Your task to perform on an android device: Go to network settings Image 0: 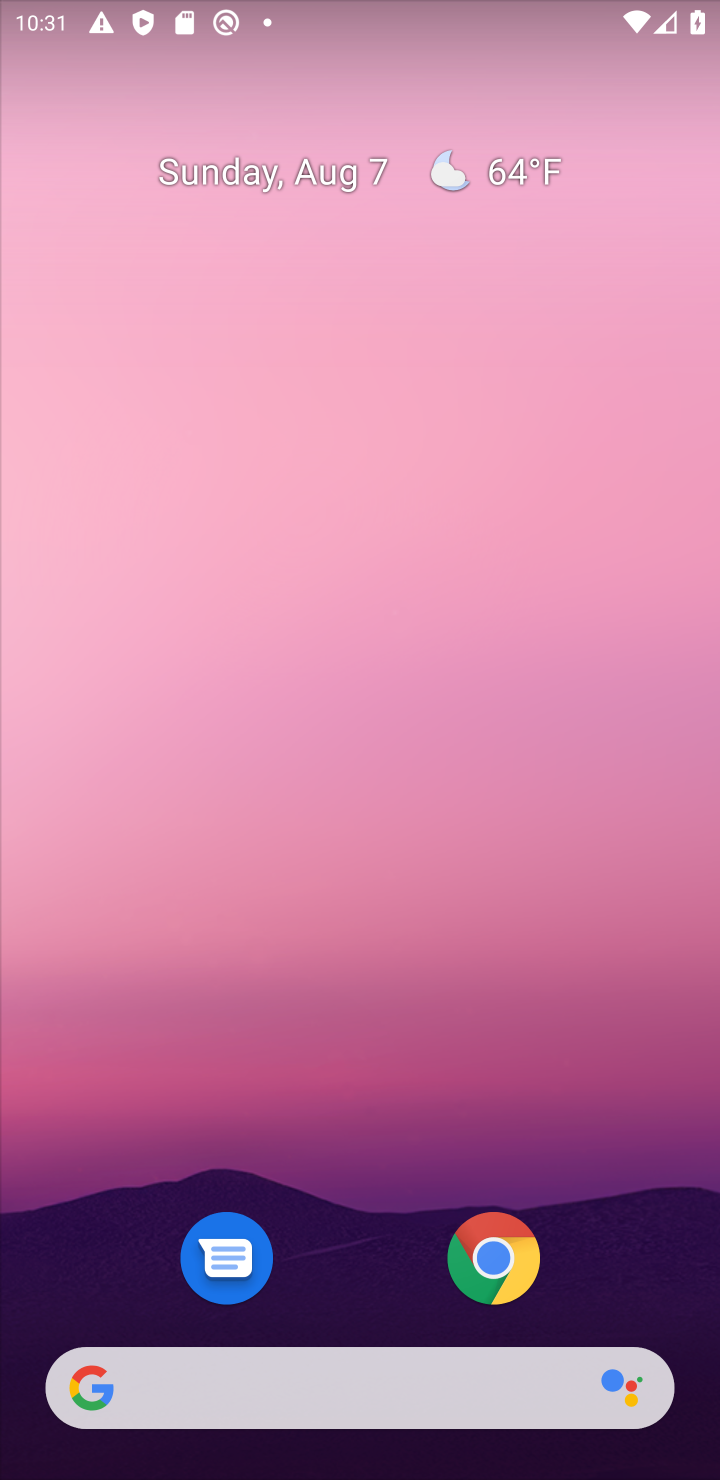
Step 0: drag from (346, 1218) to (356, 272)
Your task to perform on an android device: Go to network settings Image 1: 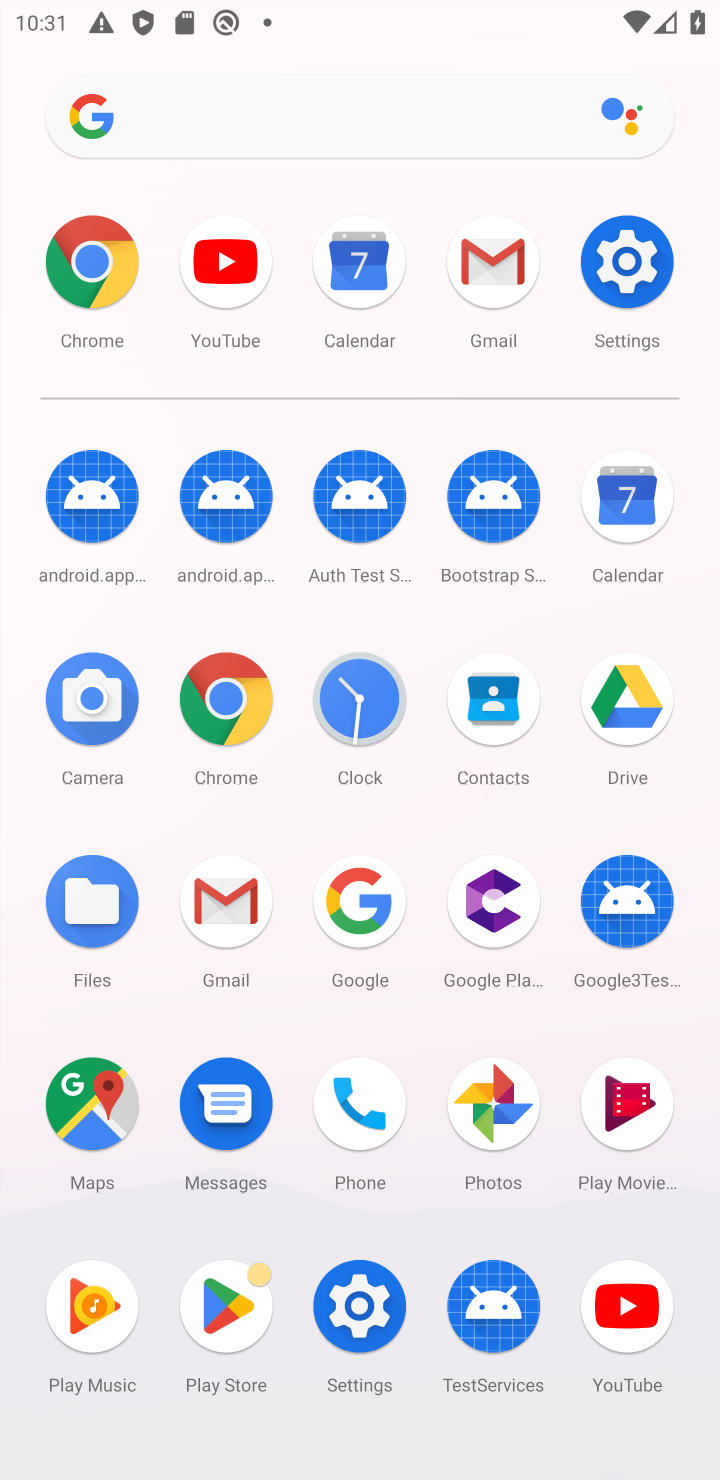
Step 1: click (616, 248)
Your task to perform on an android device: Go to network settings Image 2: 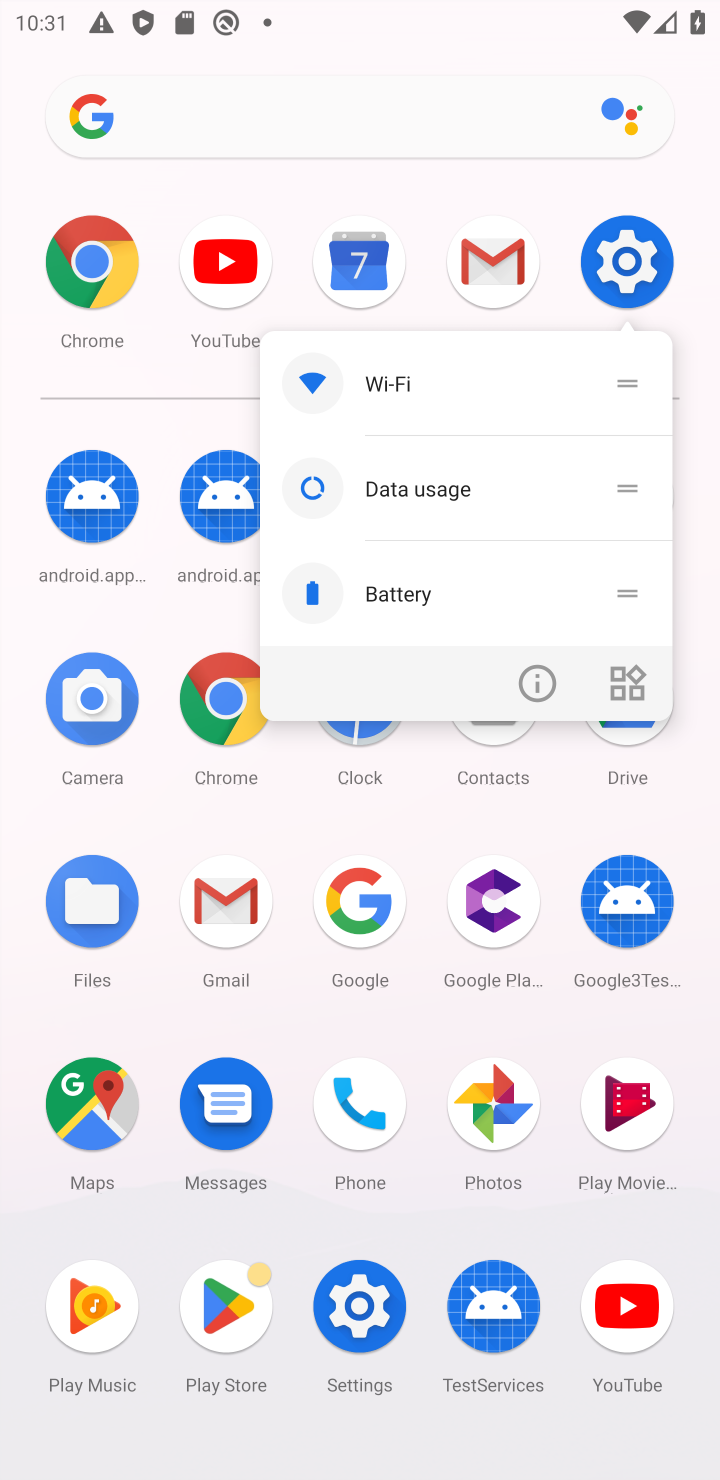
Step 2: click (616, 248)
Your task to perform on an android device: Go to network settings Image 3: 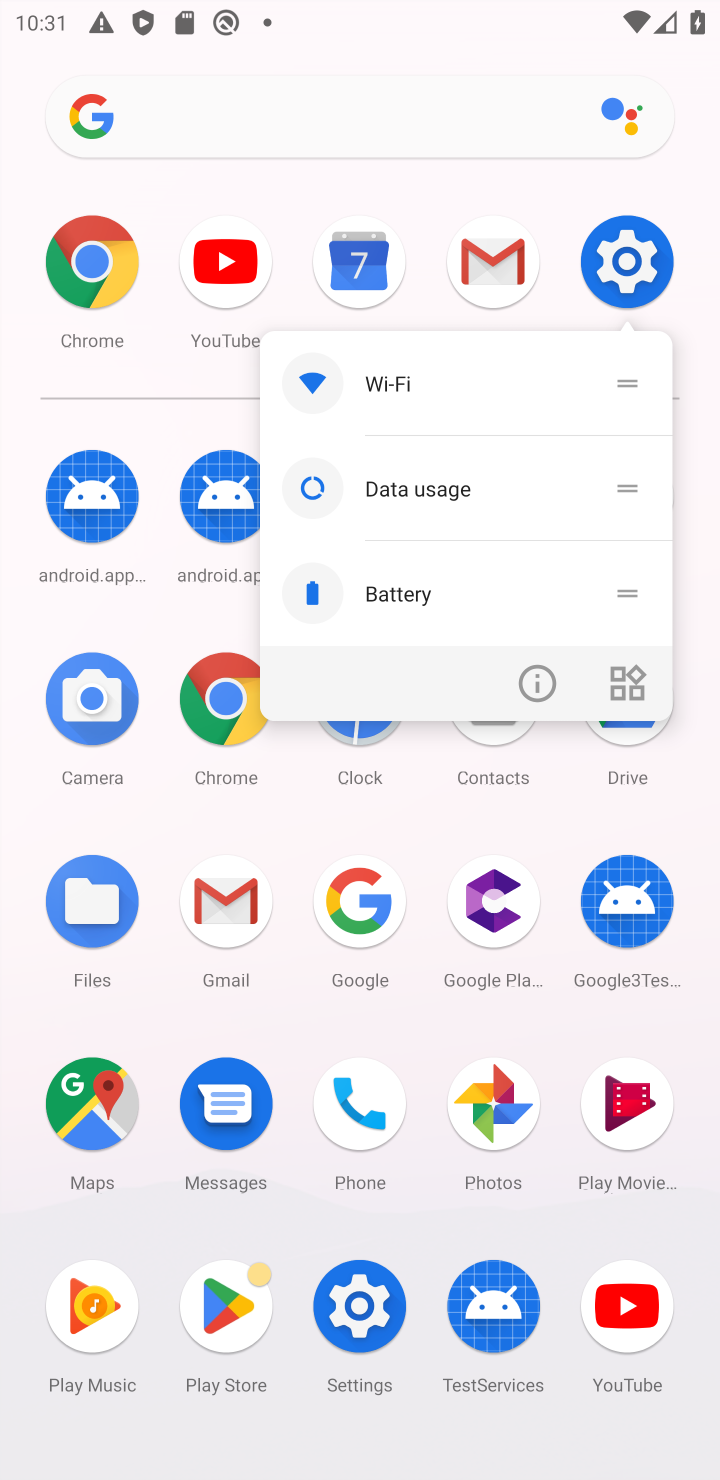
Step 3: click (616, 248)
Your task to perform on an android device: Go to network settings Image 4: 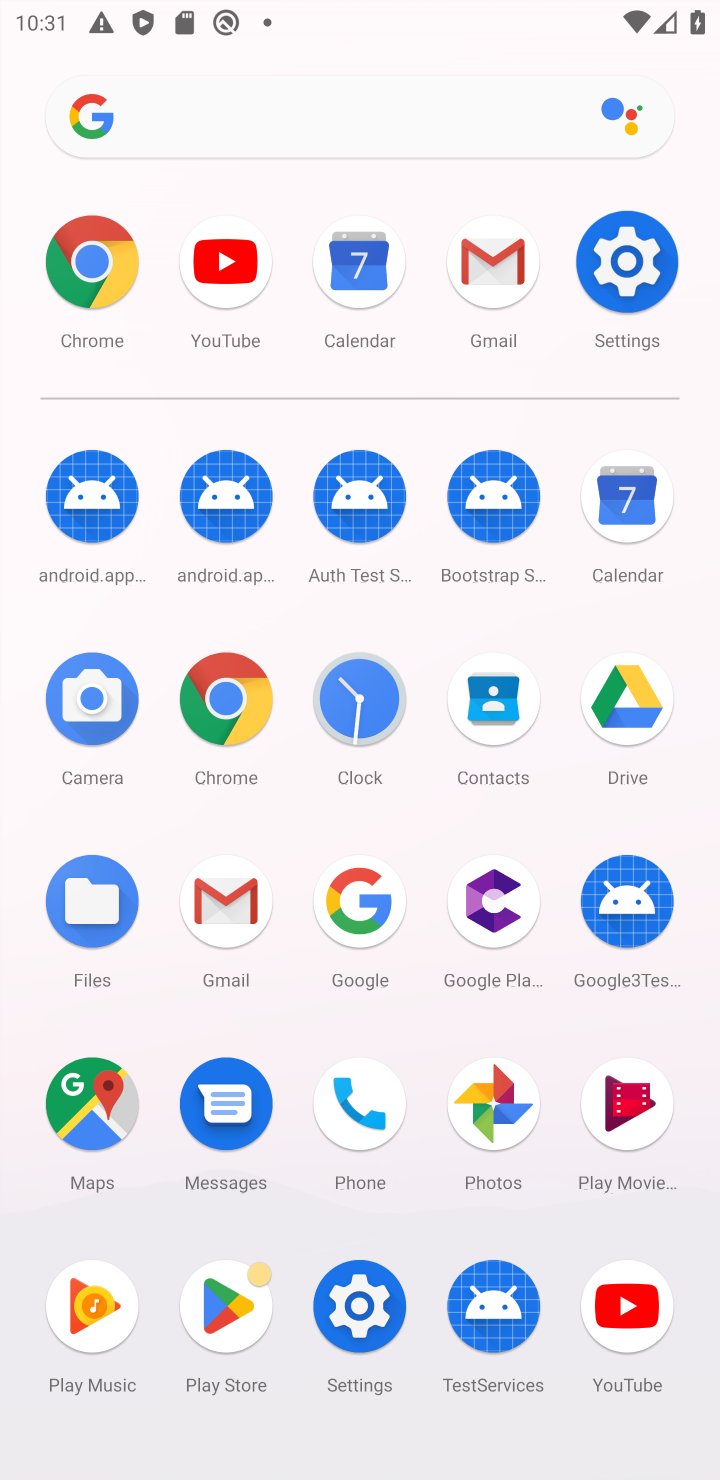
Step 4: click (616, 248)
Your task to perform on an android device: Go to network settings Image 5: 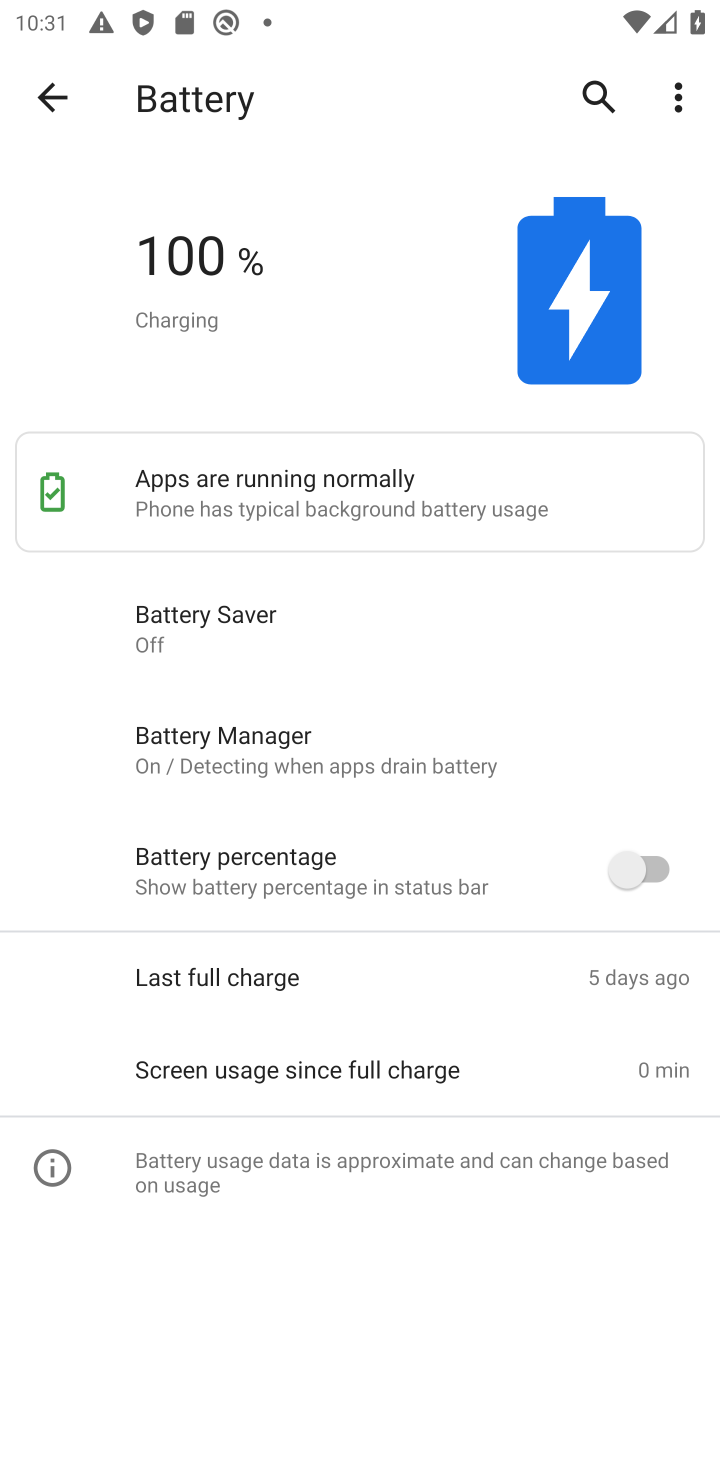
Step 5: click (41, 83)
Your task to perform on an android device: Go to network settings Image 6: 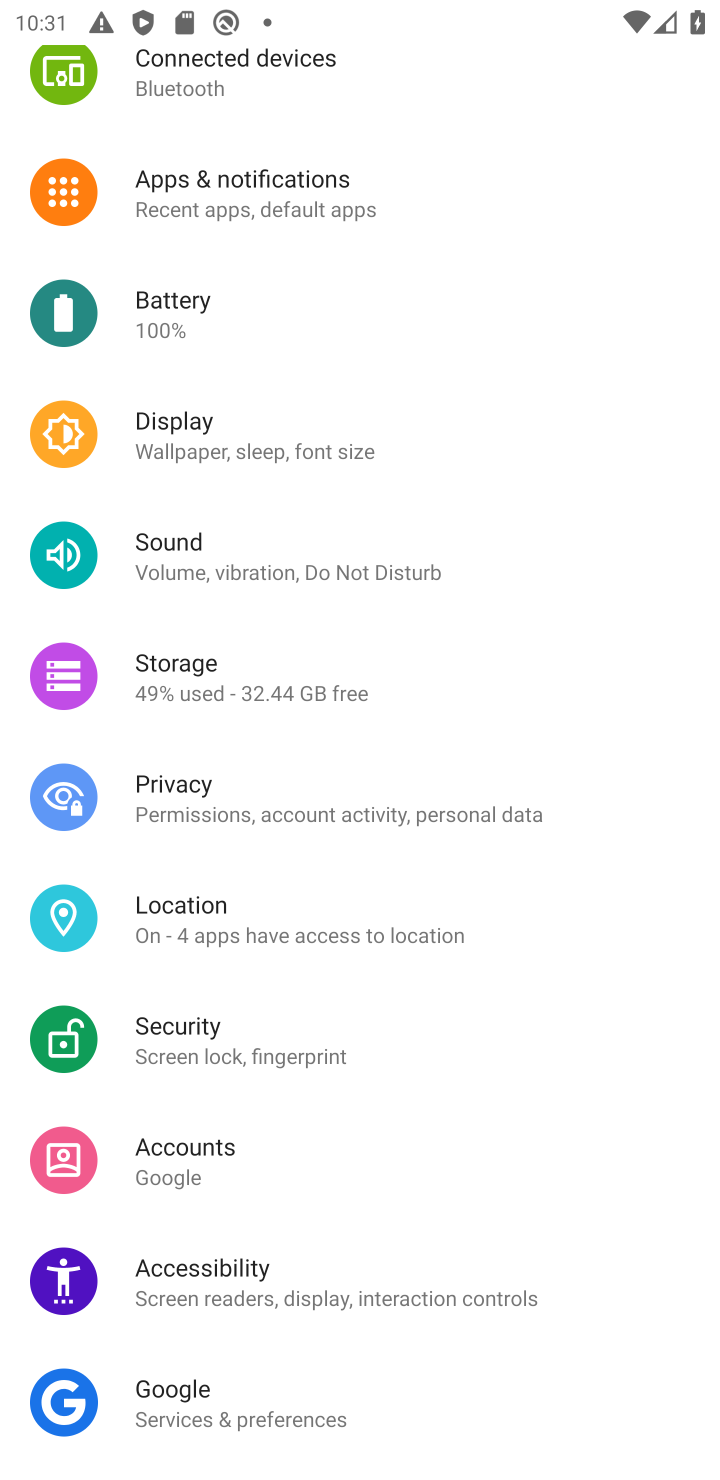
Step 6: drag from (192, 1423) to (263, 1452)
Your task to perform on an android device: Go to network settings Image 7: 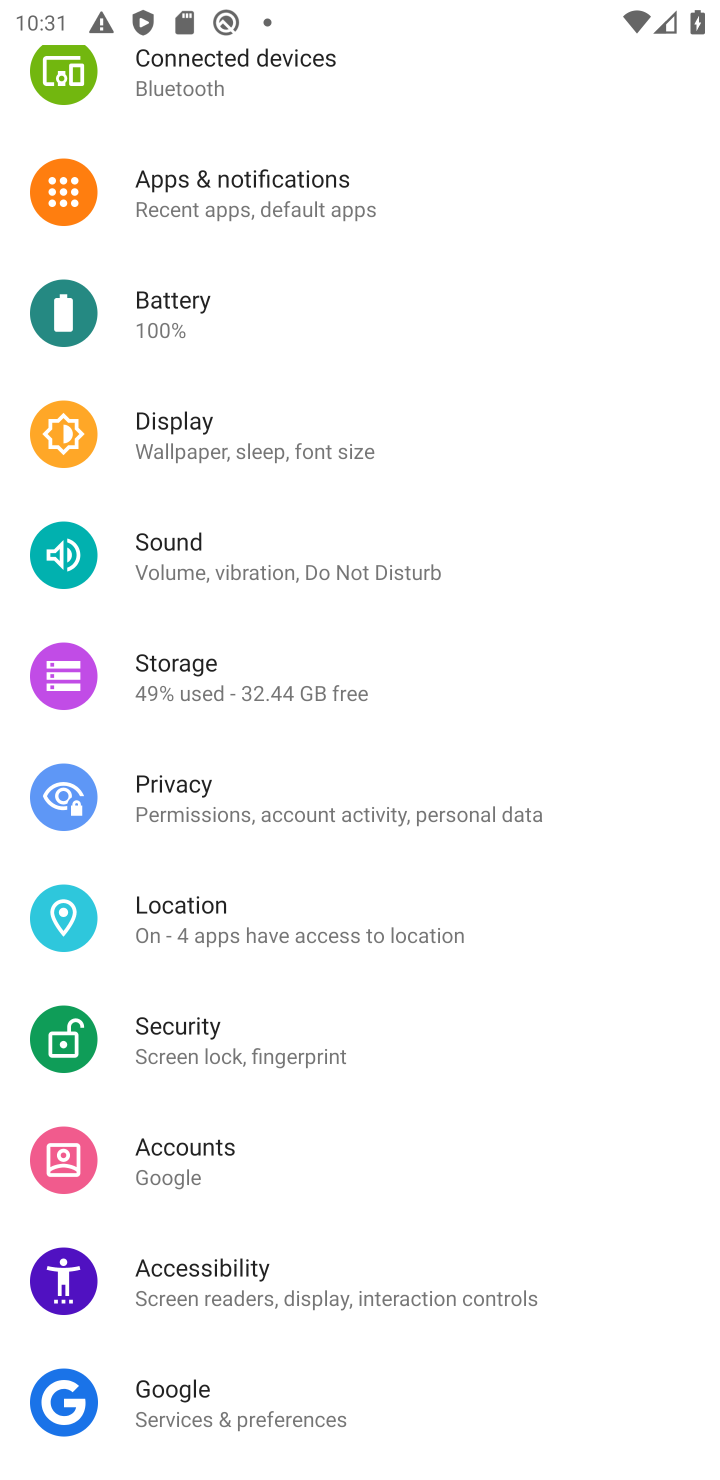
Step 7: drag from (342, 198) to (303, 1301)
Your task to perform on an android device: Go to network settings Image 8: 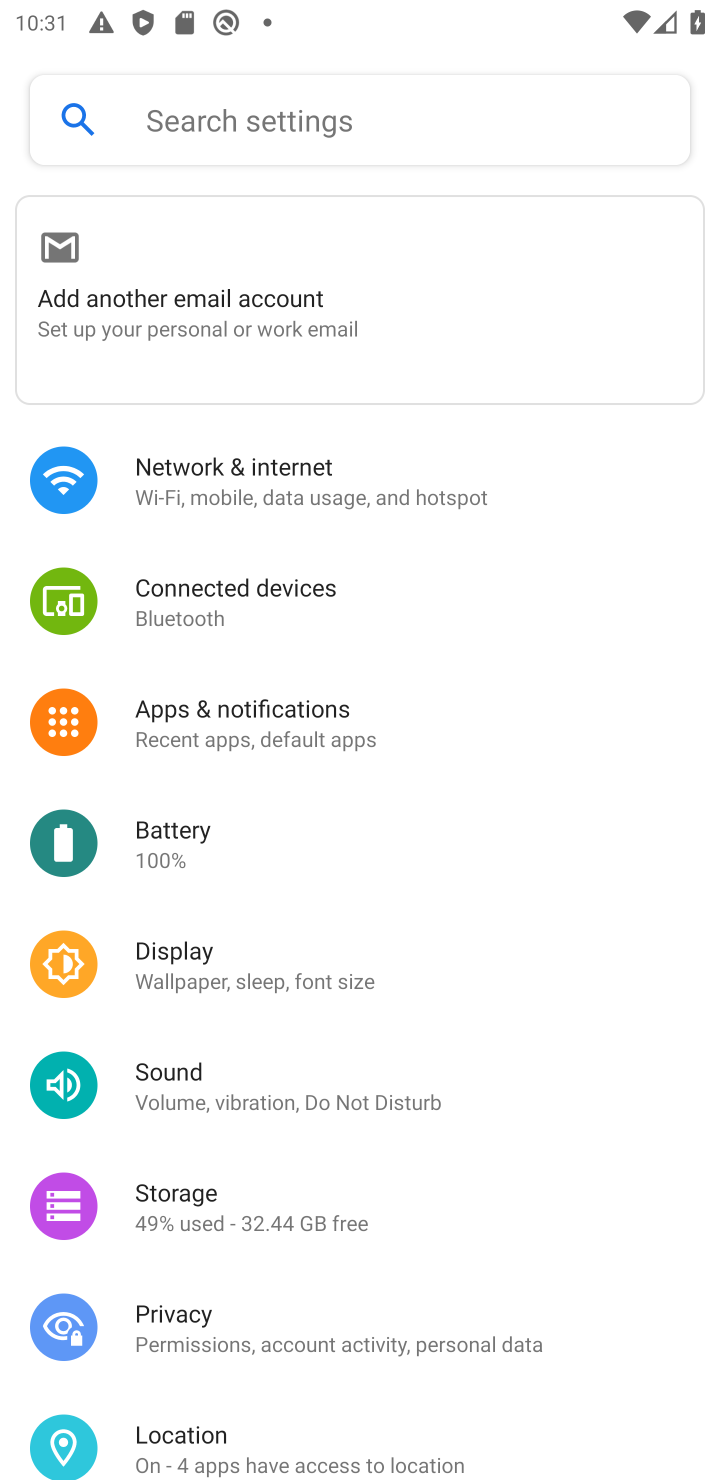
Step 8: click (186, 470)
Your task to perform on an android device: Go to network settings Image 9: 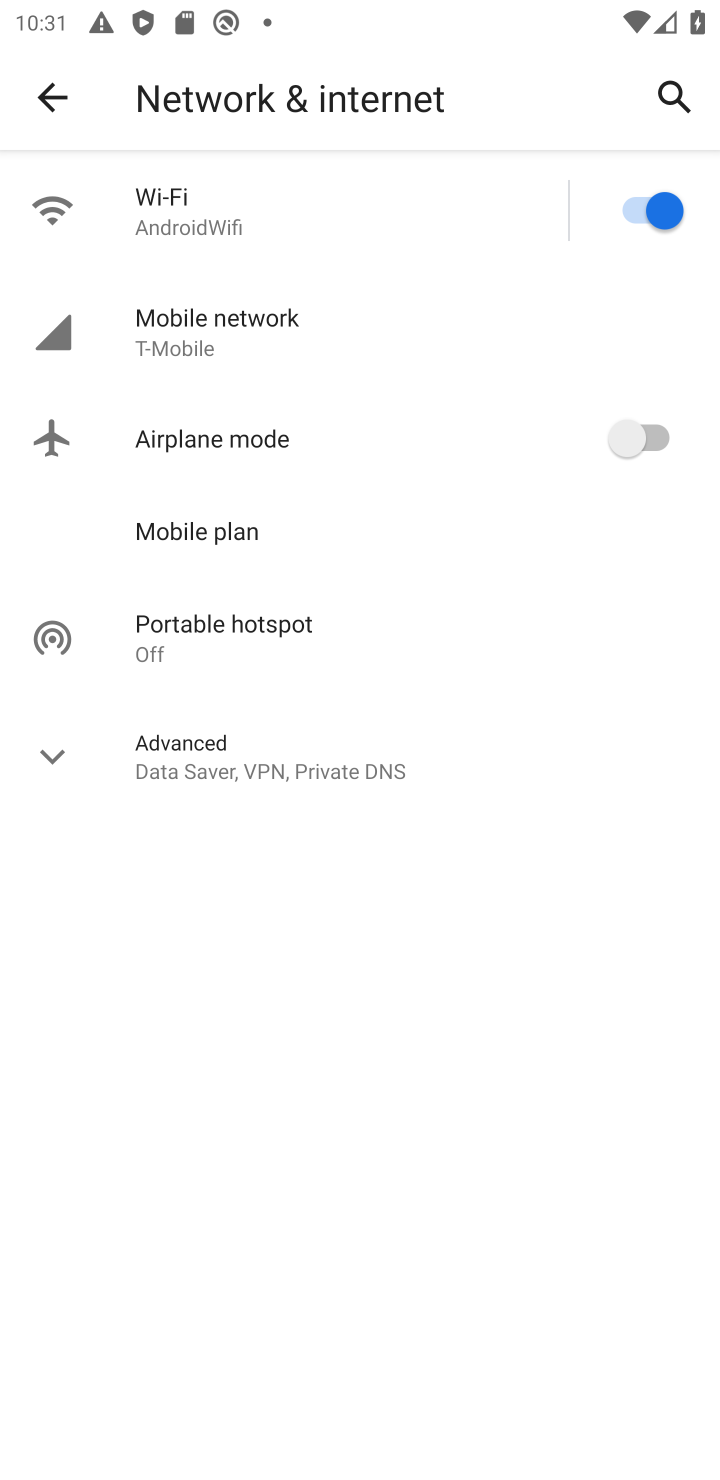
Step 9: task complete